Your task to perform on an android device: change the clock display to analog Image 0: 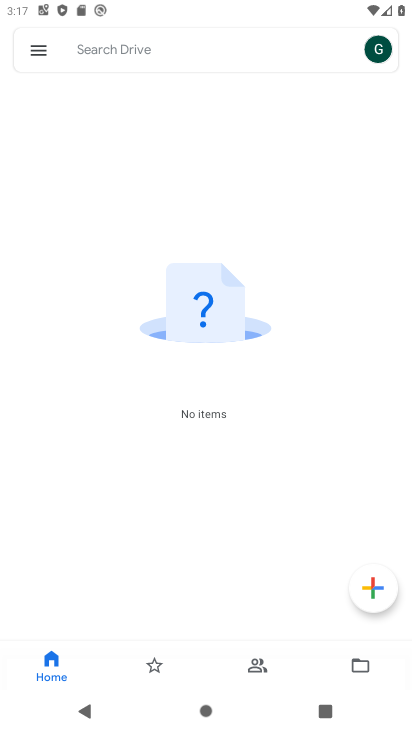
Step 0: press home button
Your task to perform on an android device: change the clock display to analog Image 1: 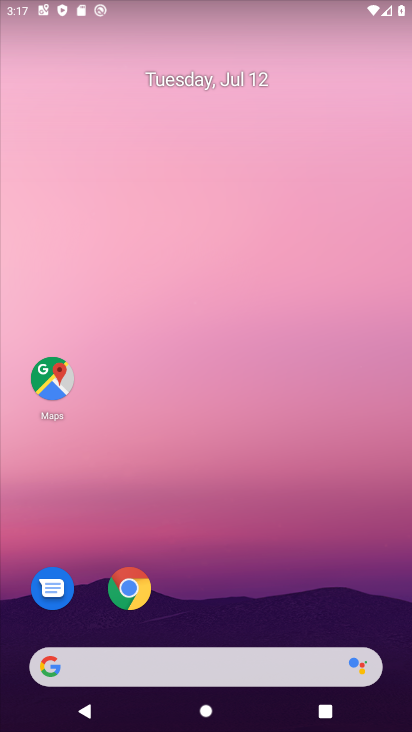
Step 1: drag from (312, 559) to (340, 7)
Your task to perform on an android device: change the clock display to analog Image 2: 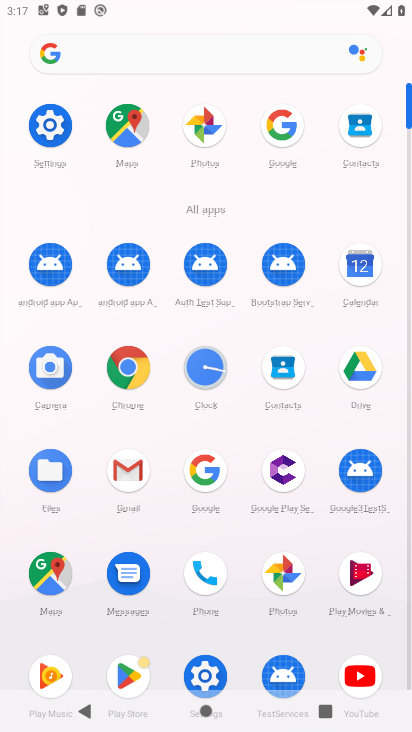
Step 2: click (200, 378)
Your task to perform on an android device: change the clock display to analog Image 3: 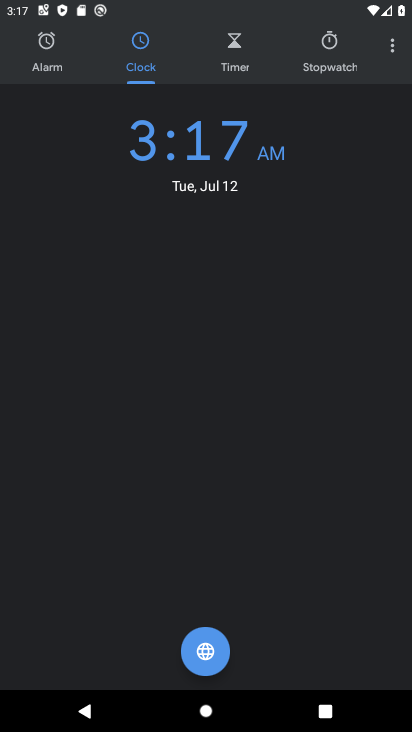
Step 3: click (200, 378)
Your task to perform on an android device: change the clock display to analog Image 4: 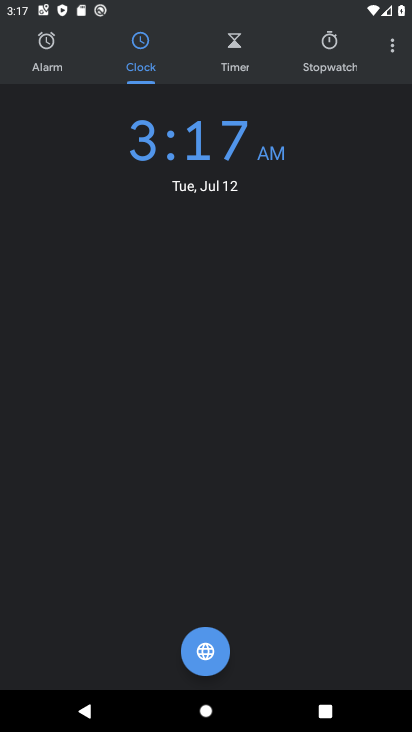
Step 4: click (385, 55)
Your task to perform on an android device: change the clock display to analog Image 5: 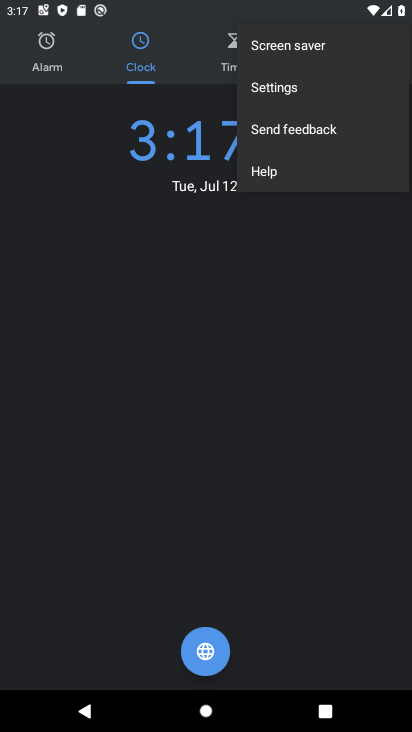
Step 5: click (302, 95)
Your task to perform on an android device: change the clock display to analog Image 6: 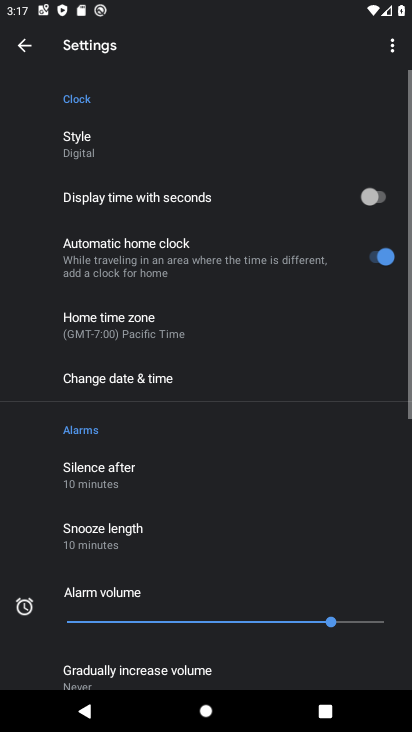
Step 6: click (96, 155)
Your task to perform on an android device: change the clock display to analog Image 7: 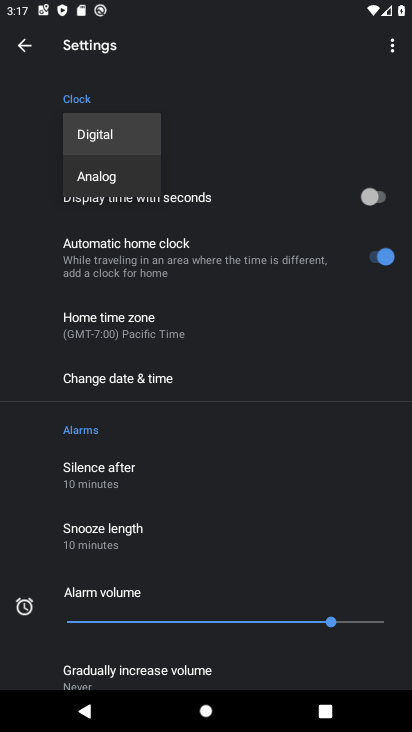
Step 7: click (107, 176)
Your task to perform on an android device: change the clock display to analog Image 8: 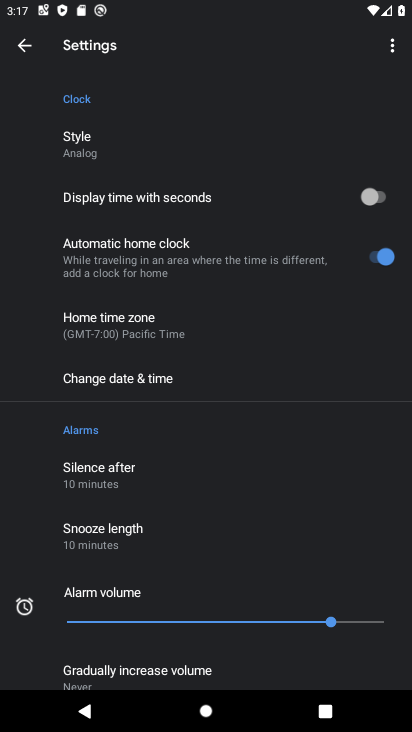
Step 8: task complete